Your task to perform on an android device: change the clock display to digital Image 0: 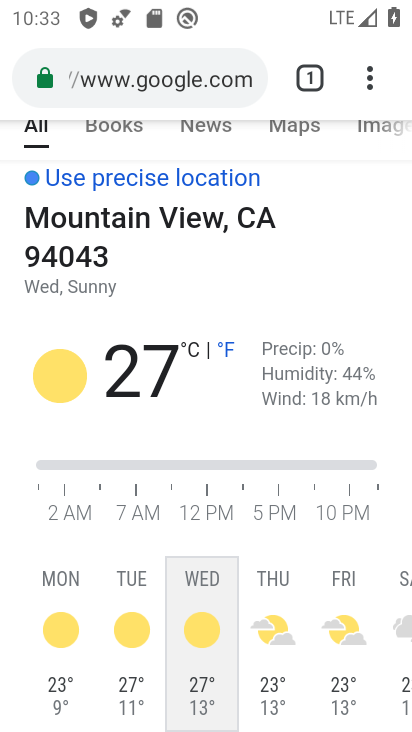
Step 0: press home button
Your task to perform on an android device: change the clock display to digital Image 1: 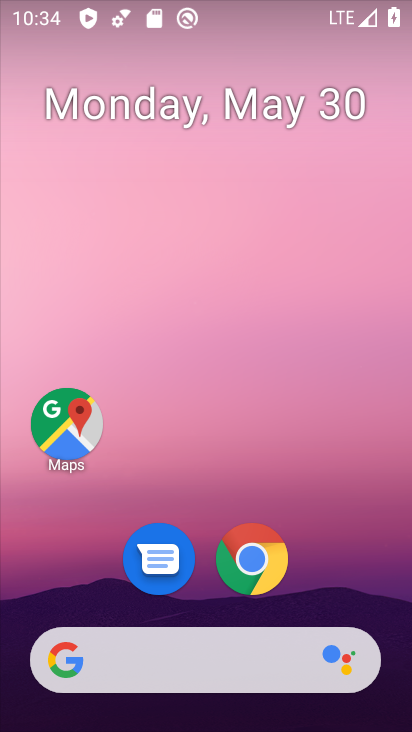
Step 1: drag from (349, 578) to (257, 149)
Your task to perform on an android device: change the clock display to digital Image 2: 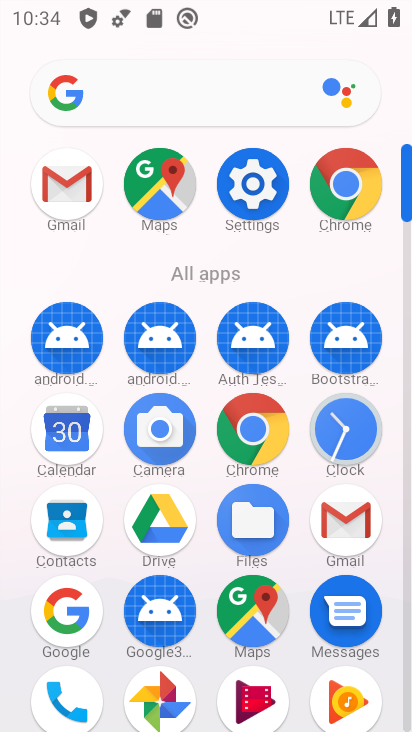
Step 2: click (360, 438)
Your task to perform on an android device: change the clock display to digital Image 3: 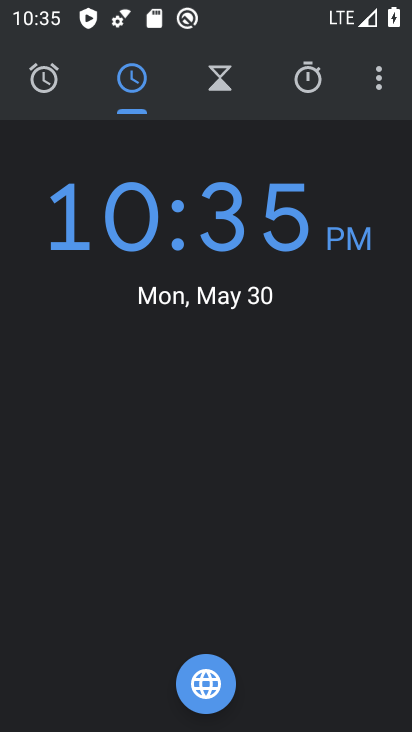
Step 3: click (381, 83)
Your task to perform on an android device: change the clock display to digital Image 4: 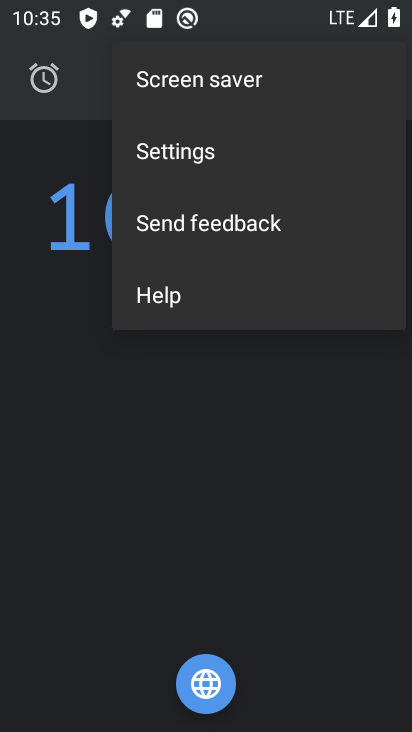
Step 4: click (325, 146)
Your task to perform on an android device: change the clock display to digital Image 5: 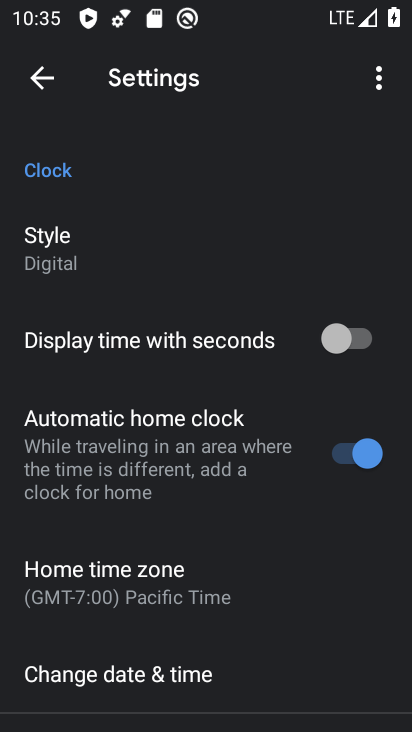
Step 5: click (275, 257)
Your task to perform on an android device: change the clock display to digital Image 6: 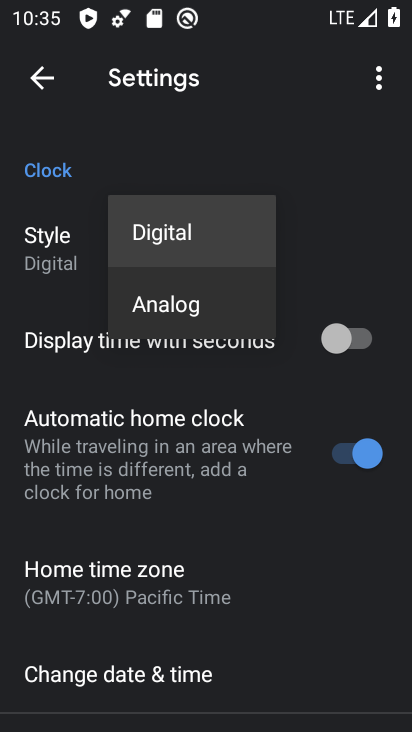
Step 6: task complete